Your task to perform on an android device: allow notifications from all sites in the chrome app Image 0: 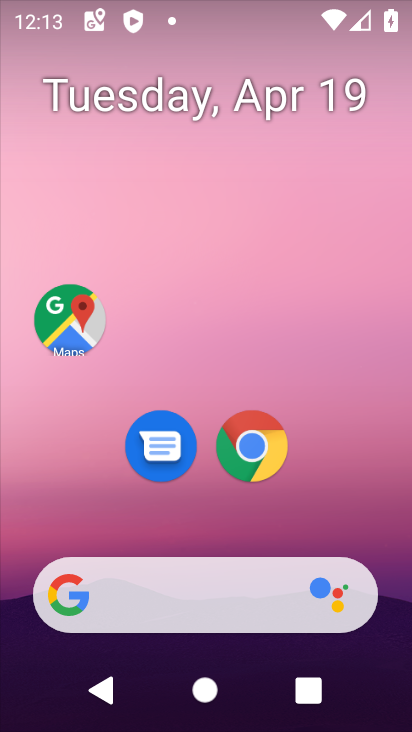
Step 0: click (253, 442)
Your task to perform on an android device: allow notifications from all sites in the chrome app Image 1: 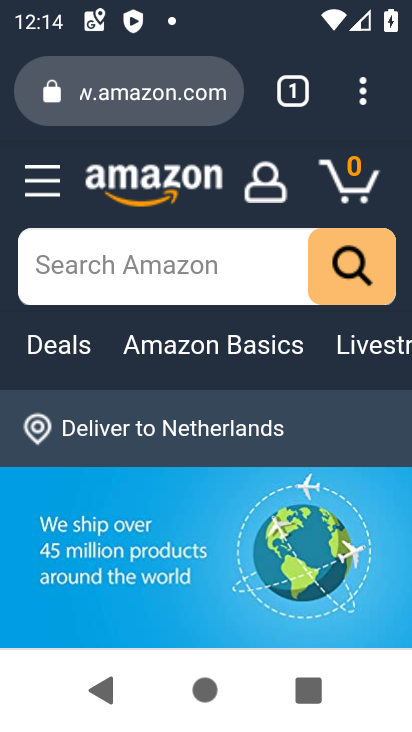
Step 1: click (363, 102)
Your task to perform on an android device: allow notifications from all sites in the chrome app Image 2: 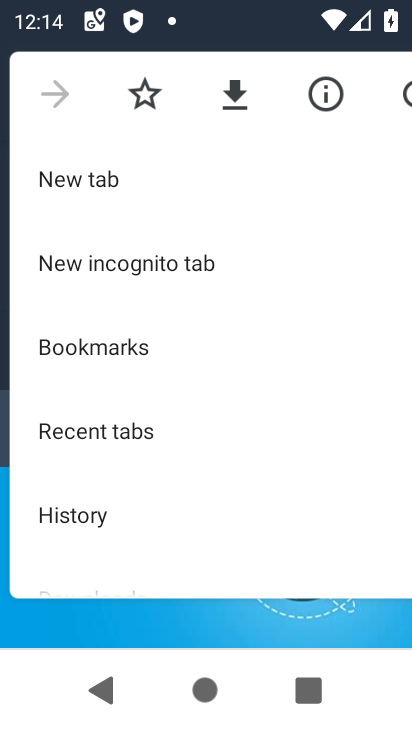
Step 2: drag from (254, 435) to (251, 174)
Your task to perform on an android device: allow notifications from all sites in the chrome app Image 3: 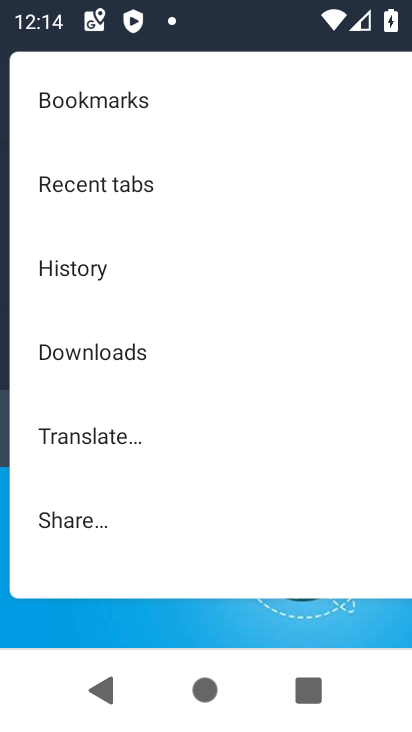
Step 3: drag from (231, 487) to (241, 182)
Your task to perform on an android device: allow notifications from all sites in the chrome app Image 4: 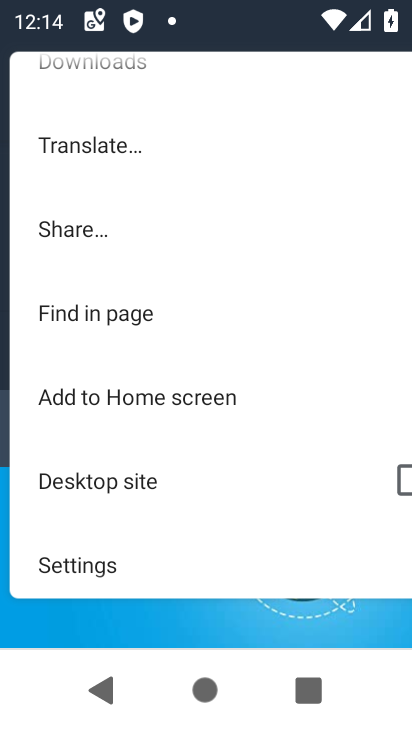
Step 4: drag from (241, 467) to (234, 198)
Your task to perform on an android device: allow notifications from all sites in the chrome app Image 5: 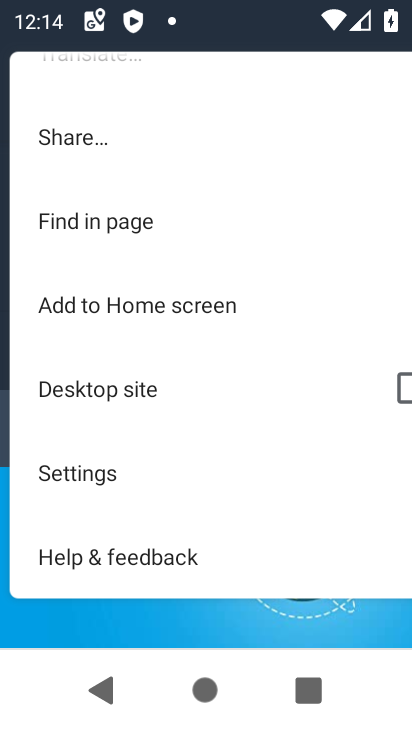
Step 5: click (93, 479)
Your task to perform on an android device: allow notifications from all sites in the chrome app Image 6: 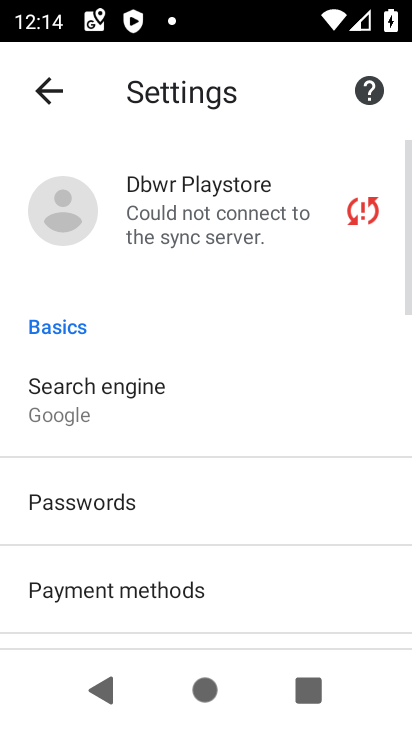
Step 6: drag from (263, 540) to (331, 276)
Your task to perform on an android device: allow notifications from all sites in the chrome app Image 7: 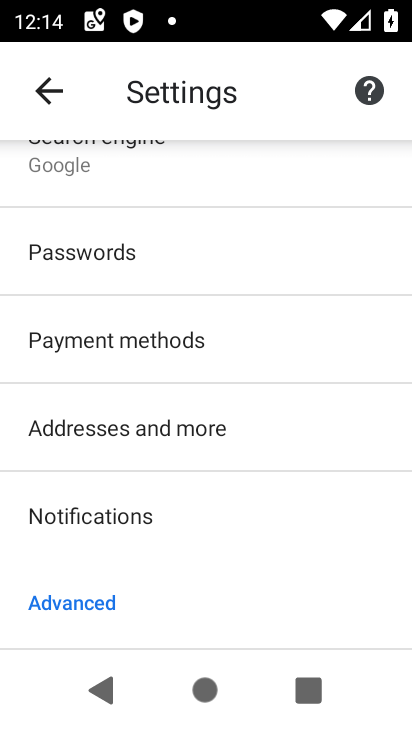
Step 7: click (146, 510)
Your task to perform on an android device: allow notifications from all sites in the chrome app Image 8: 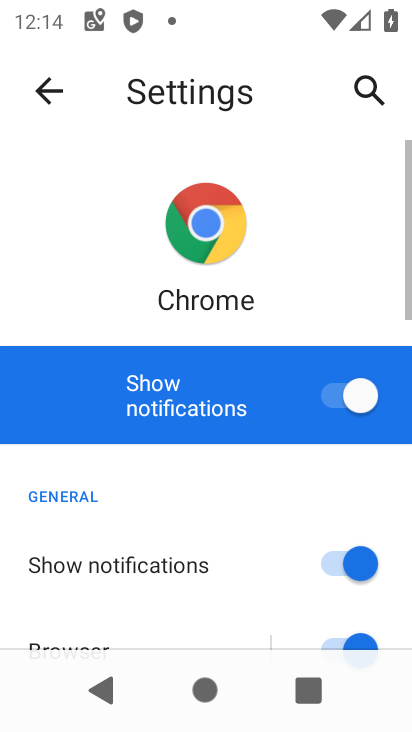
Step 8: task complete